Your task to perform on an android device: turn pop-ups on in chrome Image 0: 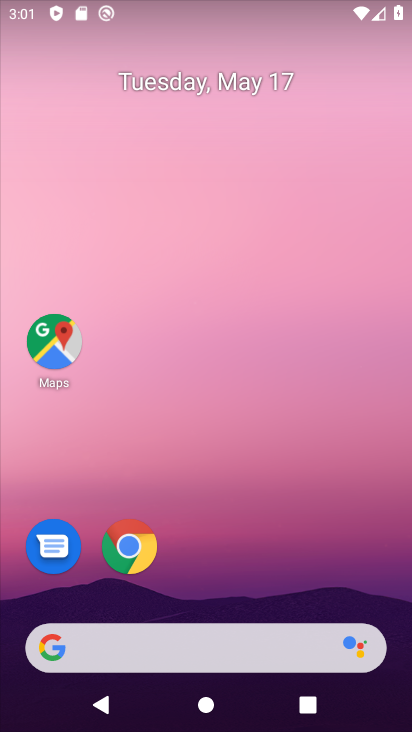
Step 0: click (132, 541)
Your task to perform on an android device: turn pop-ups on in chrome Image 1: 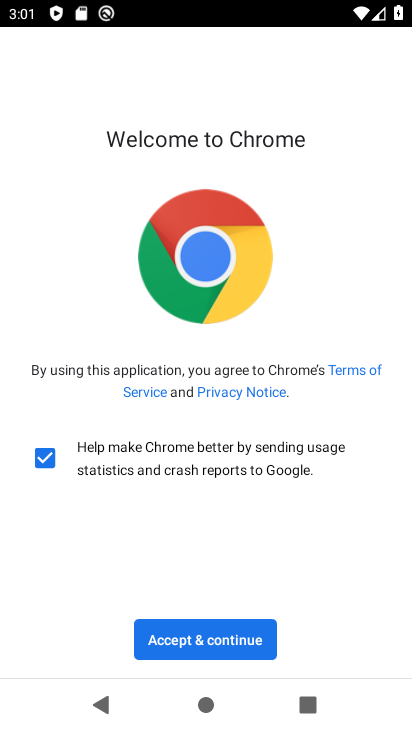
Step 1: click (200, 627)
Your task to perform on an android device: turn pop-ups on in chrome Image 2: 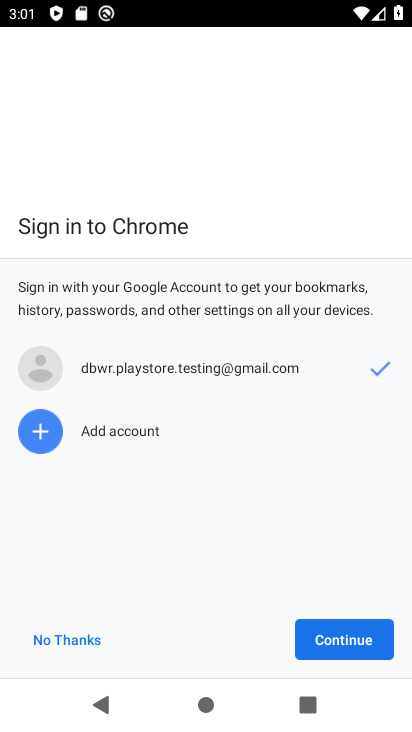
Step 2: click (375, 637)
Your task to perform on an android device: turn pop-ups on in chrome Image 3: 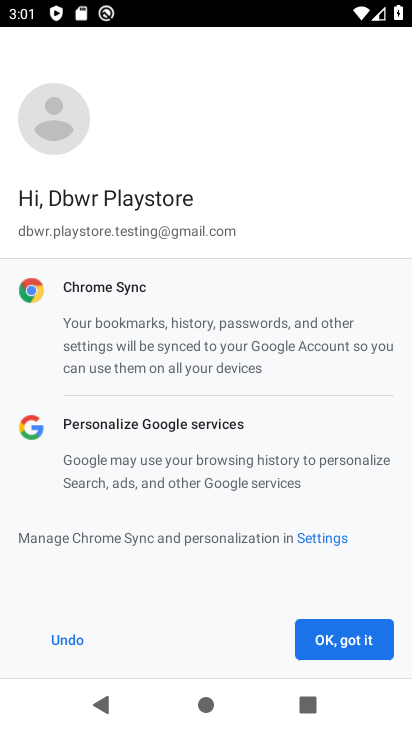
Step 3: click (375, 641)
Your task to perform on an android device: turn pop-ups on in chrome Image 4: 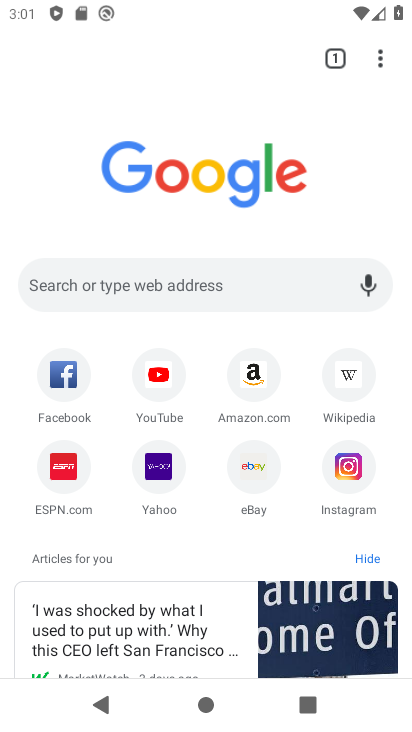
Step 4: click (379, 54)
Your task to perform on an android device: turn pop-ups on in chrome Image 5: 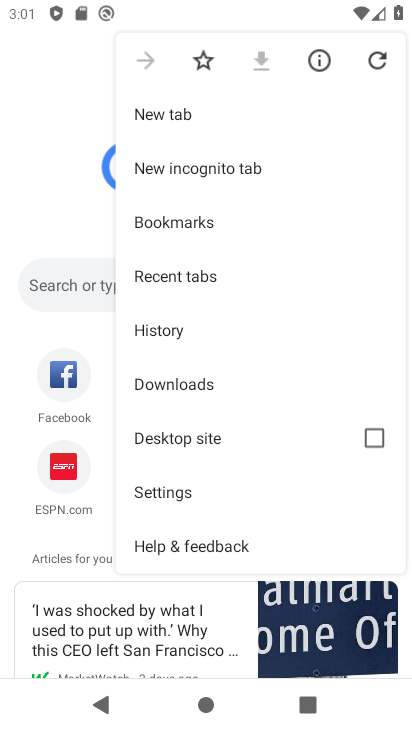
Step 5: click (163, 496)
Your task to perform on an android device: turn pop-ups on in chrome Image 6: 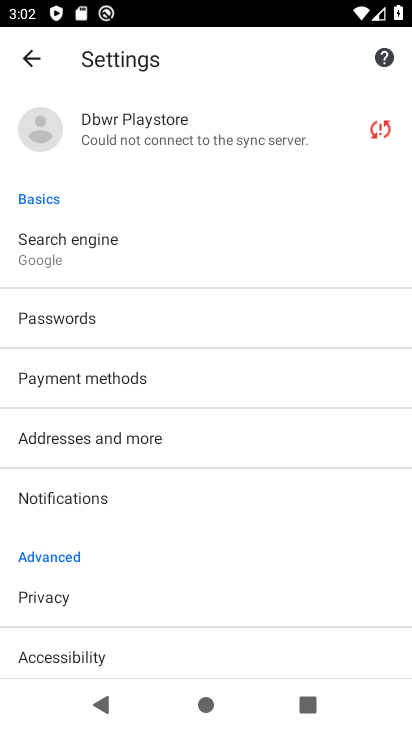
Step 6: drag from (74, 584) to (152, 233)
Your task to perform on an android device: turn pop-ups on in chrome Image 7: 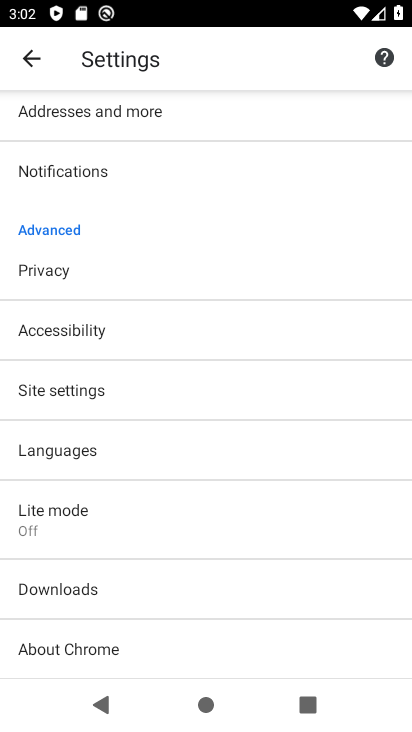
Step 7: click (56, 657)
Your task to perform on an android device: turn pop-ups on in chrome Image 8: 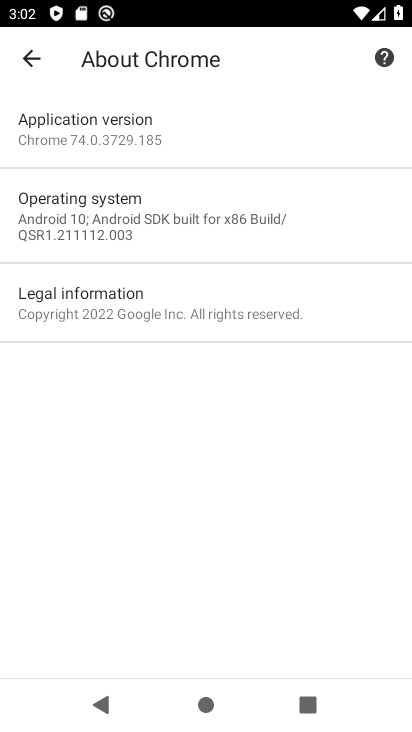
Step 8: click (27, 52)
Your task to perform on an android device: turn pop-ups on in chrome Image 9: 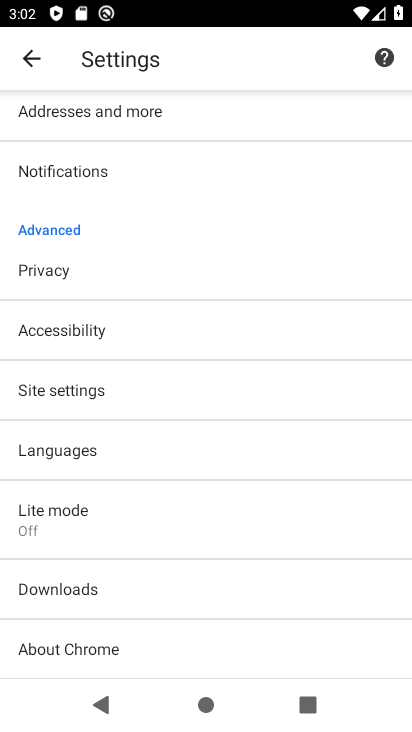
Step 9: click (83, 397)
Your task to perform on an android device: turn pop-ups on in chrome Image 10: 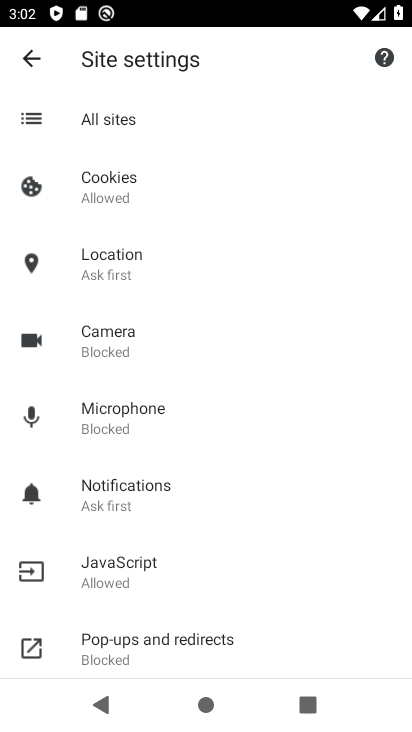
Step 10: click (160, 637)
Your task to perform on an android device: turn pop-ups on in chrome Image 11: 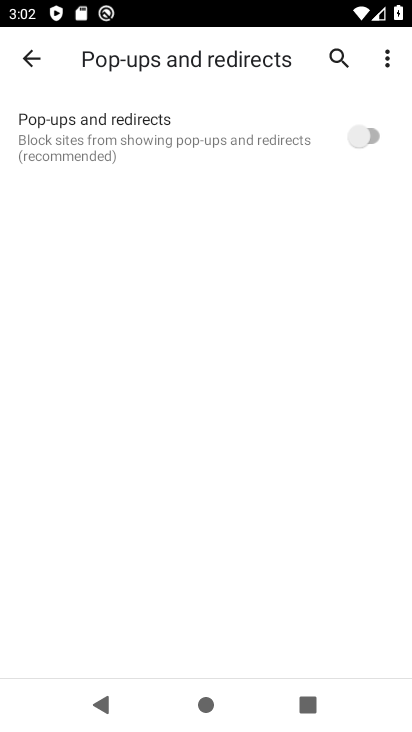
Step 11: click (366, 131)
Your task to perform on an android device: turn pop-ups on in chrome Image 12: 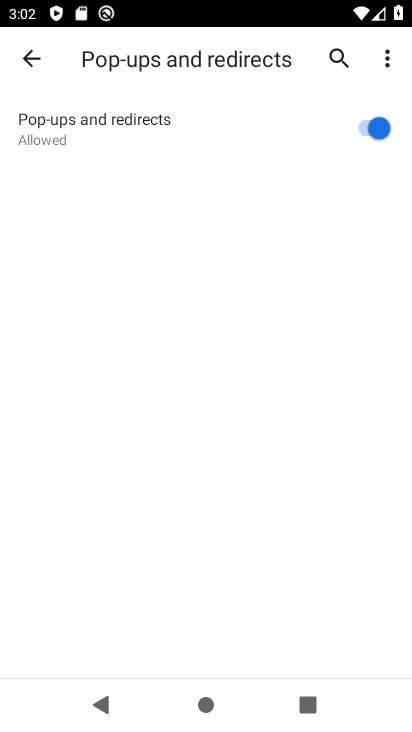
Step 12: task complete